Your task to perform on an android device: find photos in the google photos app Image 0: 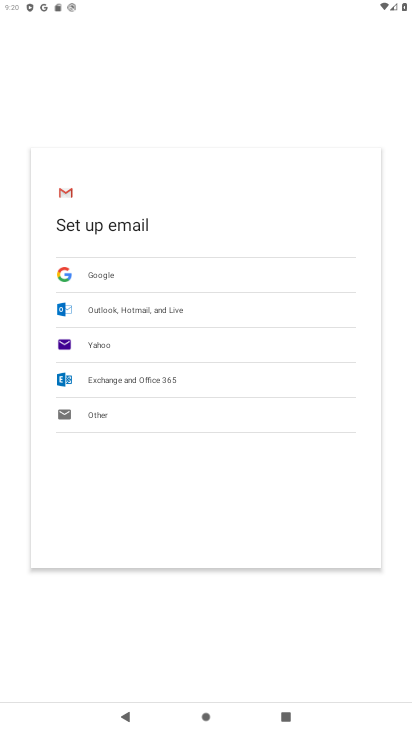
Step 0: press home button
Your task to perform on an android device: find photos in the google photos app Image 1: 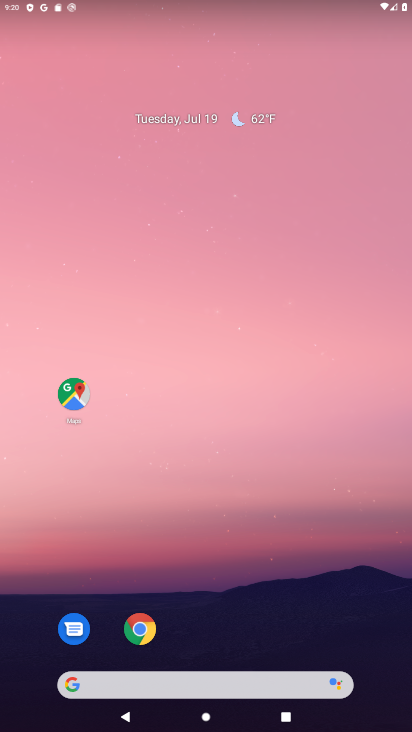
Step 1: drag from (241, 654) to (234, 4)
Your task to perform on an android device: find photos in the google photos app Image 2: 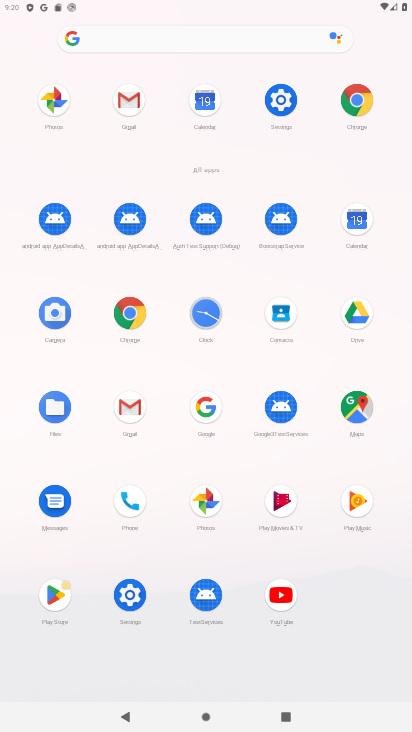
Step 2: click (211, 511)
Your task to perform on an android device: find photos in the google photos app Image 3: 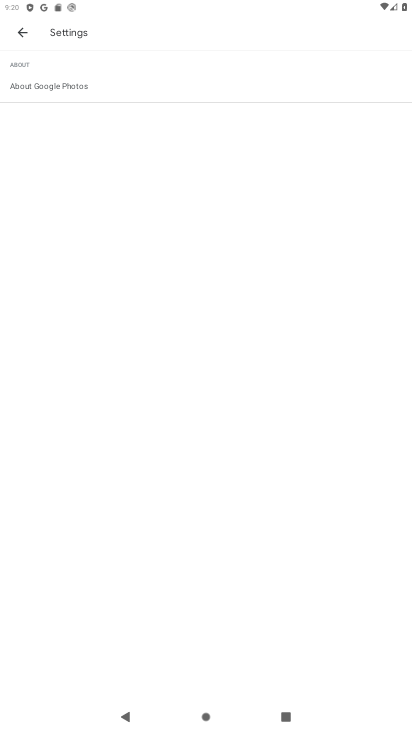
Step 3: click (17, 31)
Your task to perform on an android device: find photos in the google photos app Image 4: 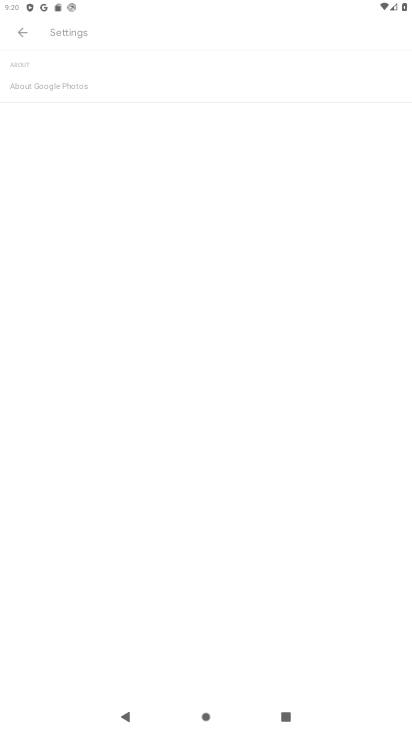
Step 4: click (17, 31)
Your task to perform on an android device: find photos in the google photos app Image 5: 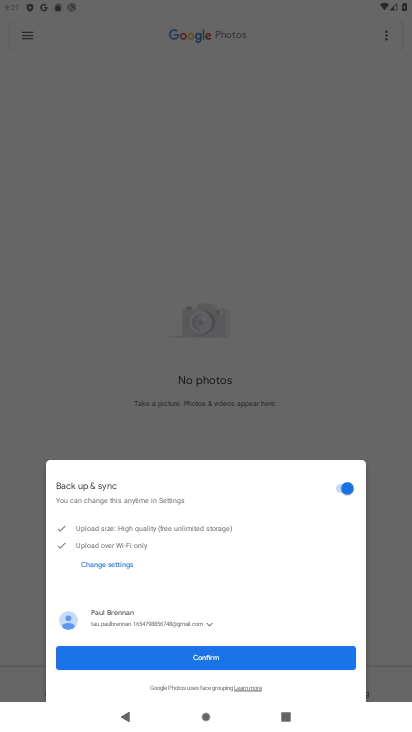
Step 5: click (188, 649)
Your task to perform on an android device: find photos in the google photos app Image 6: 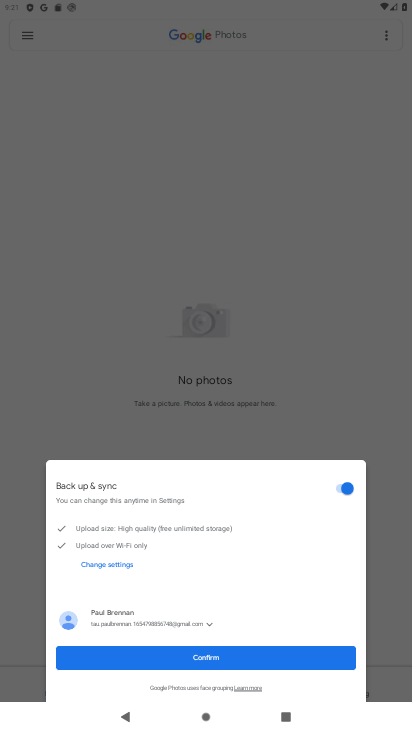
Step 6: click (188, 649)
Your task to perform on an android device: find photos in the google photos app Image 7: 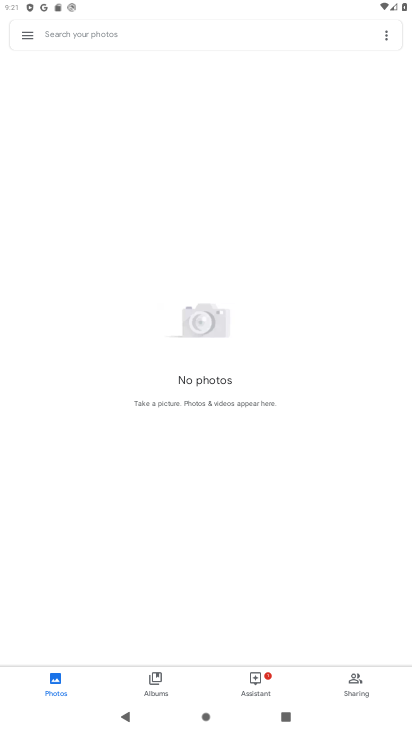
Step 7: task complete